Your task to perform on an android device: Clear all items from cart on ebay.com. Search for "razer blade" on ebay.com, select the first entry, and add it to the cart. Image 0: 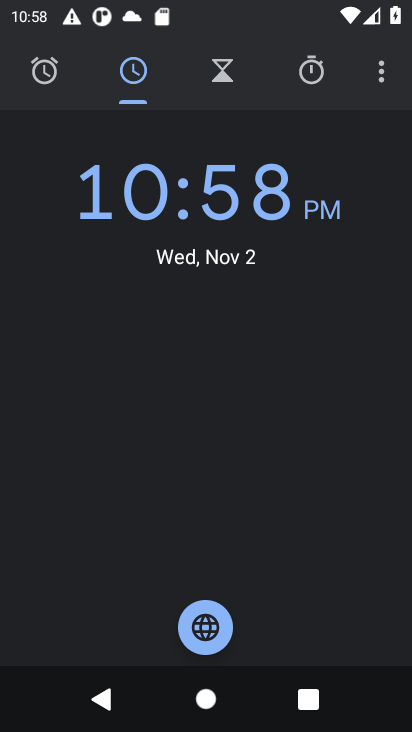
Step 0: press home button
Your task to perform on an android device: Clear all items from cart on ebay.com. Search for "razer blade" on ebay.com, select the first entry, and add it to the cart. Image 1: 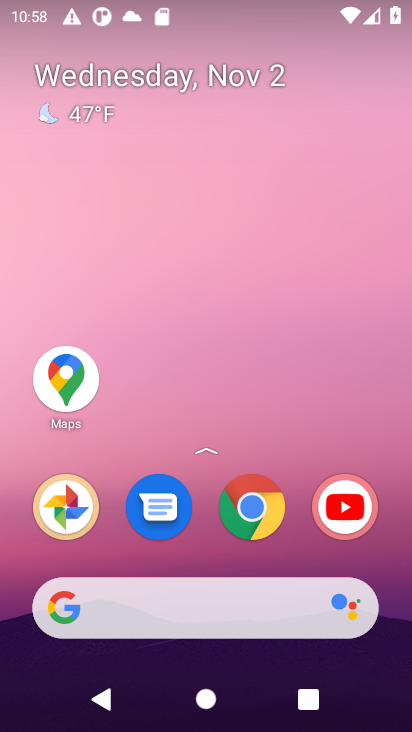
Step 1: click (233, 629)
Your task to perform on an android device: Clear all items from cart on ebay.com. Search for "razer blade" on ebay.com, select the first entry, and add it to the cart. Image 2: 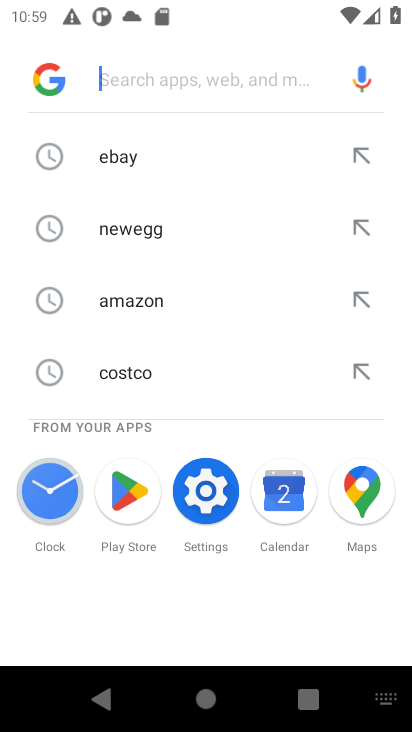
Step 2: click (111, 167)
Your task to perform on an android device: Clear all items from cart on ebay.com. Search for "razer blade" on ebay.com, select the first entry, and add it to the cart. Image 3: 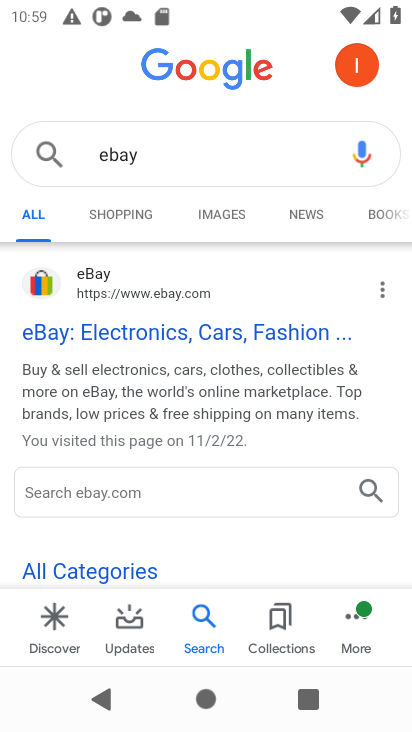
Step 3: click (163, 342)
Your task to perform on an android device: Clear all items from cart on ebay.com. Search for "razer blade" on ebay.com, select the first entry, and add it to the cart. Image 4: 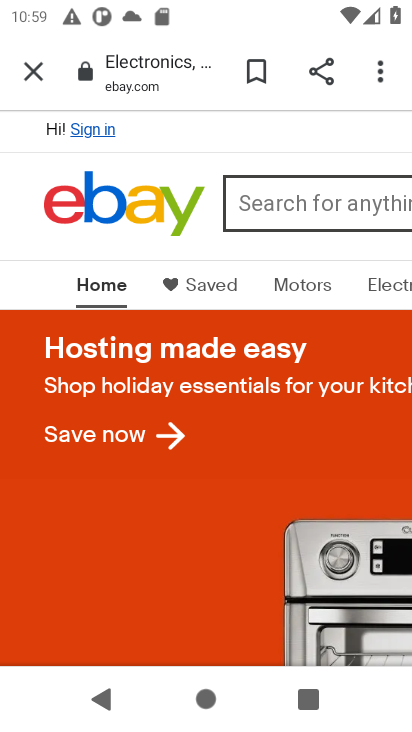
Step 4: click (289, 214)
Your task to perform on an android device: Clear all items from cart on ebay.com. Search for "razer blade" on ebay.com, select the first entry, and add it to the cart. Image 5: 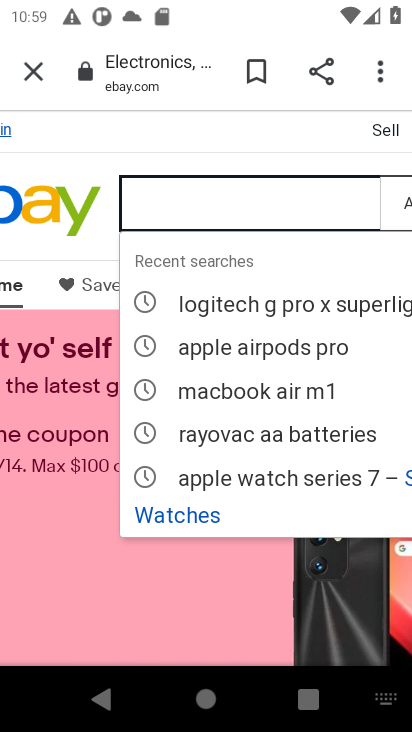
Step 5: type "razer blade"
Your task to perform on an android device: Clear all items from cart on ebay.com. Search for "razer blade" on ebay.com, select the first entry, and add it to the cart. Image 6: 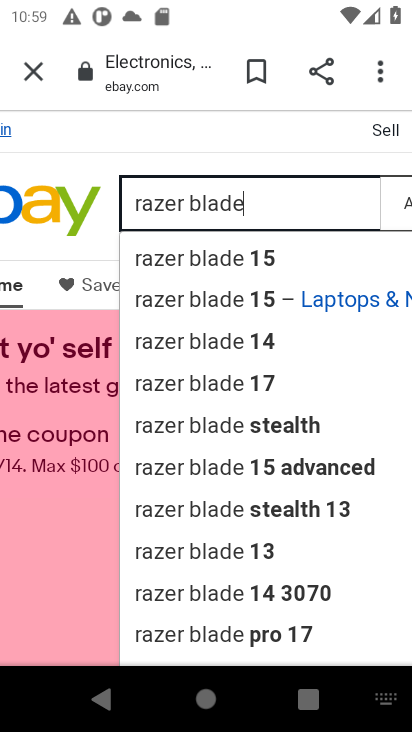
Step 6: click (241, 247)
Your task to perform on an android device: Clear all items from cart on ebay.com. Search for "razer blade" on ebay.com, select the first entry, and add it to the cart. Image 7: 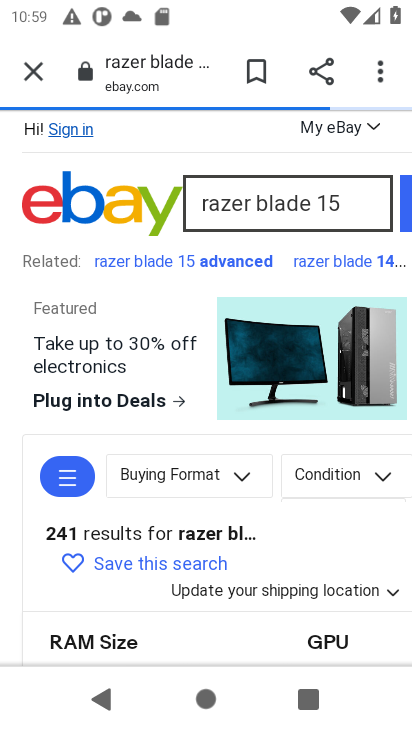
Step 7: task complete